Your task to perform on an android device: turn notification dots off Image 0: 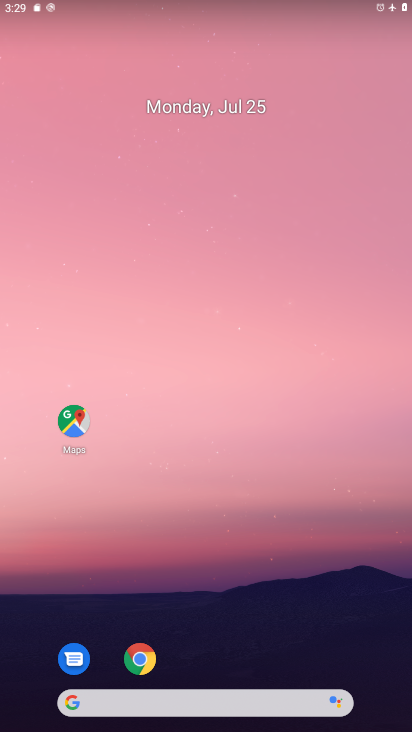
Step 0: drag from (173, 555) to (197, 42)
Your task to perform on an android device: turn notification dots off Image 1: 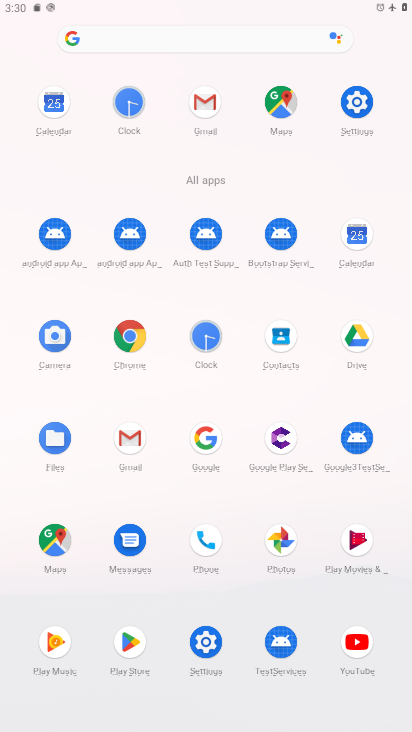
Step 1: click (213, 665)
Your task to perform on an android device: turn notification dots off Image 2: 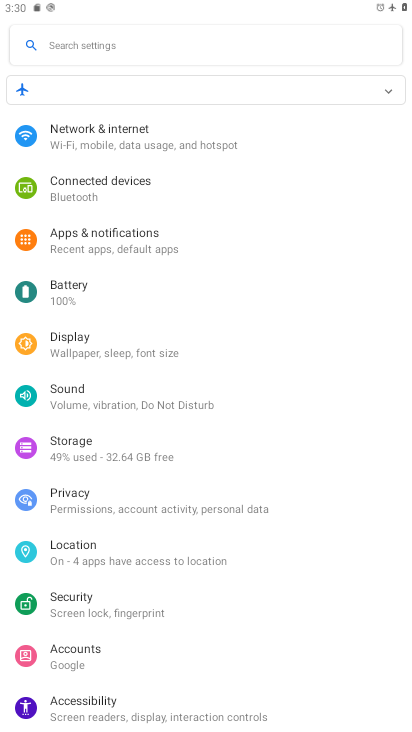
Step 2: click (113, 244)
Your task to perform on an android device: turn notification dots off Image 3: 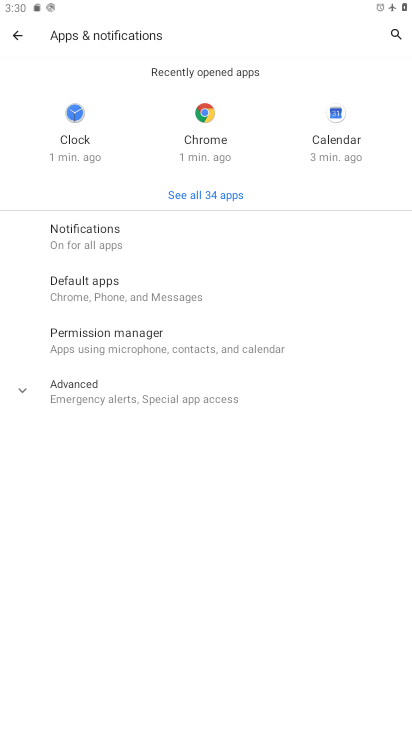
Step 3: click (109, 395)
Your task to perform on an android device: turn notification dots off Image 4: 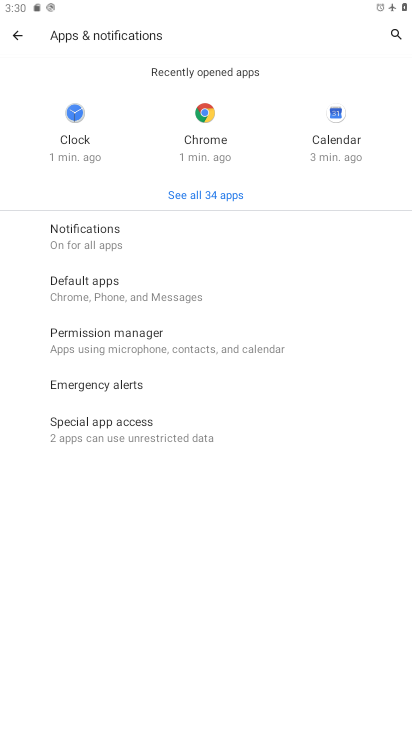
Step 4: click (108, 243)
Your task to perform on an android device: turn notification dots off Image 5: 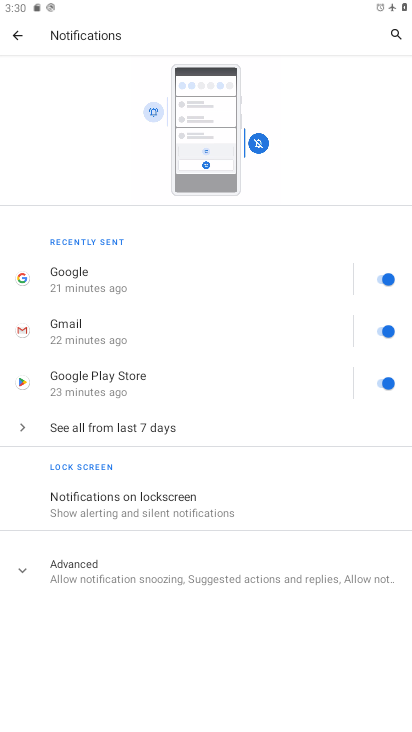
Step 5: click (113, 573)
Your task to perform on an android device: turn notification dots off Image 6: 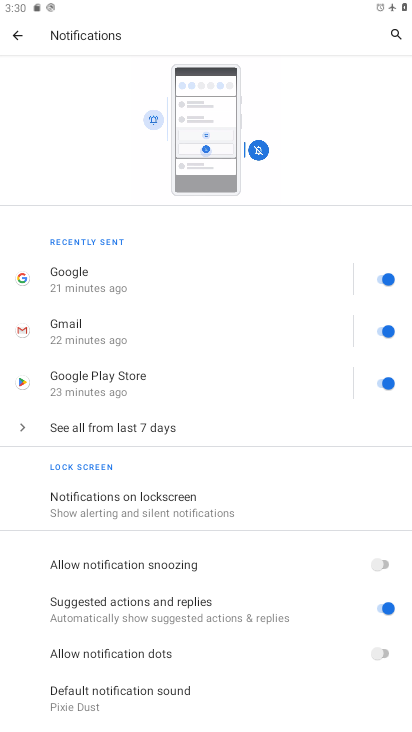
Step 6: task complete